Your task to perform on an android device: uninstall "Fetch Rewards" Image 0: 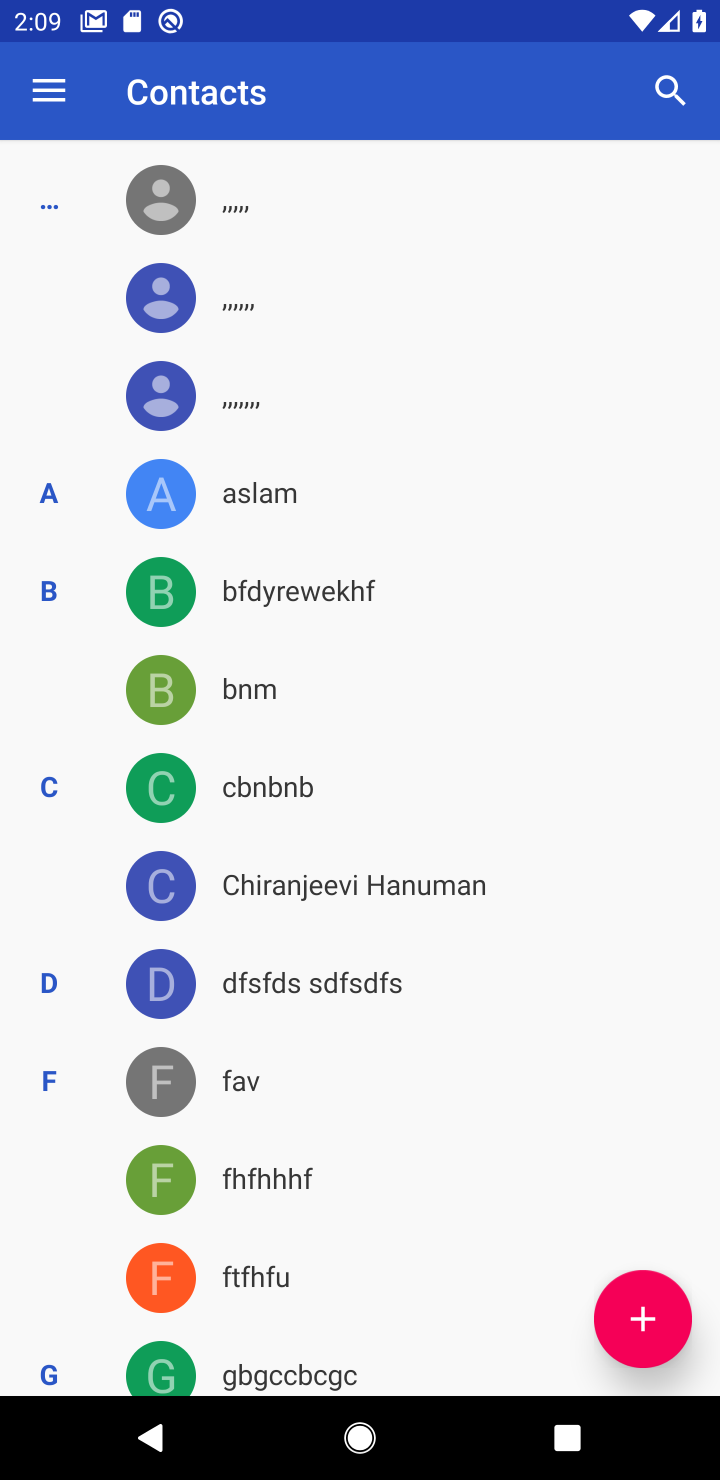
Step 0: press home button
Your task to perform on an android device: uninstall "Fetch Rewards" Image 1: 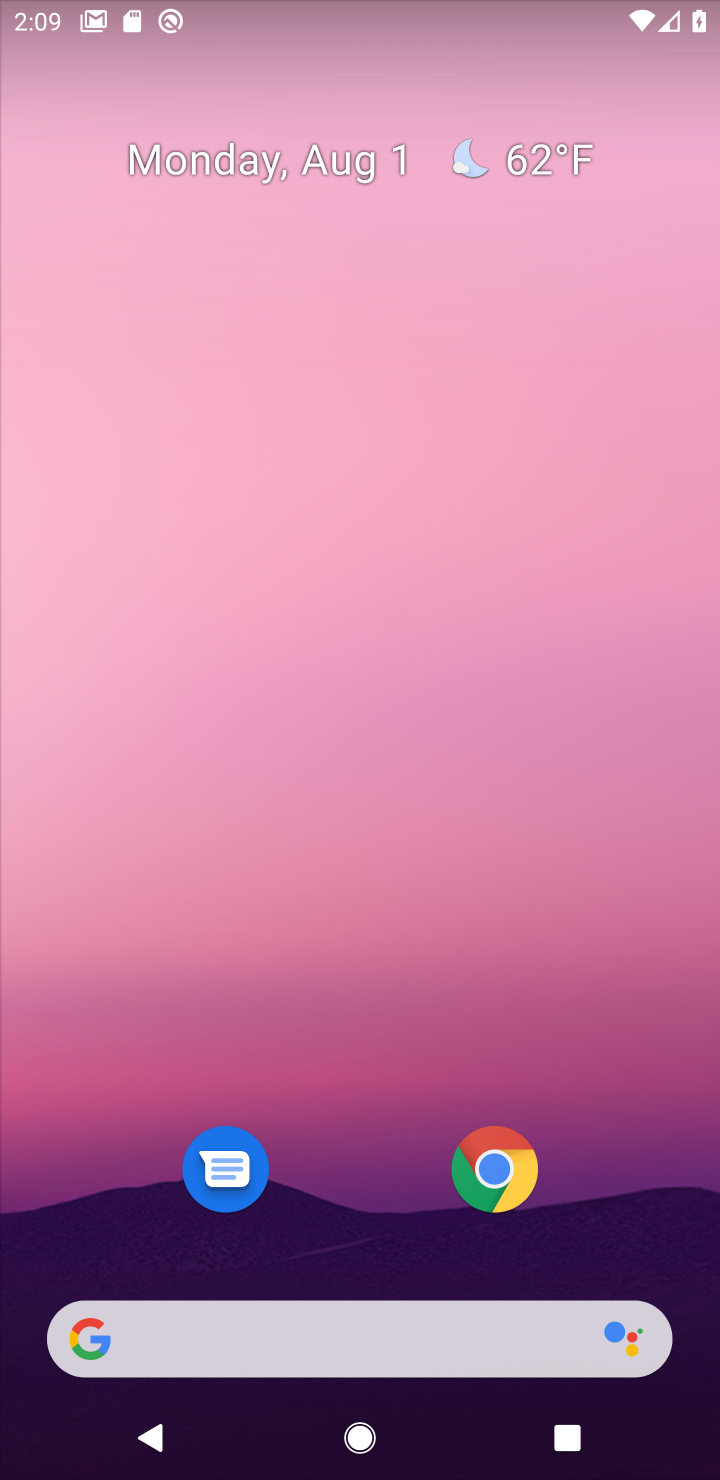
Step 1: drag from (285, 911) to (274, 230)
Your task to perform on an android device: uninstall "Fetch Rewards" Image 2: 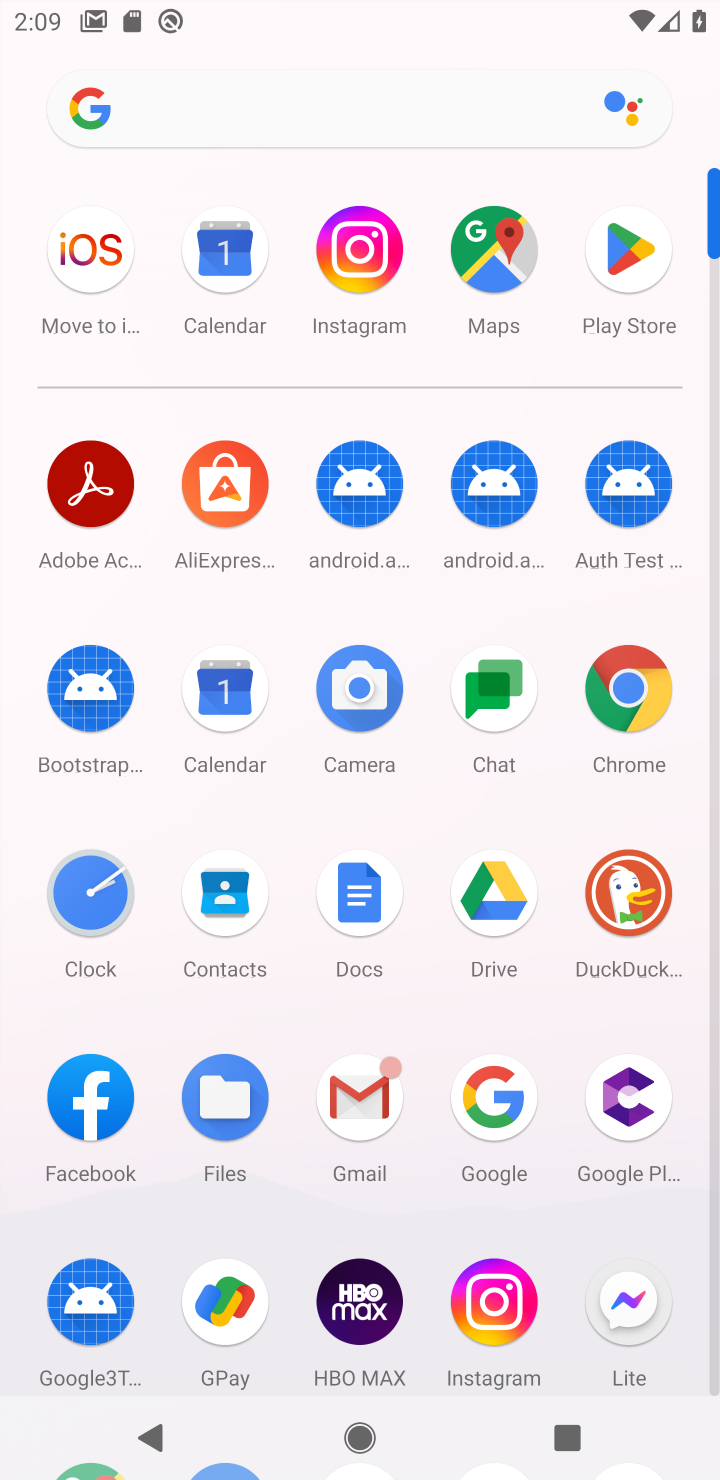
Step 2: click (654, 295)
Your task to perform on an android device: uninstall "Fetch Rewards" Image 3: 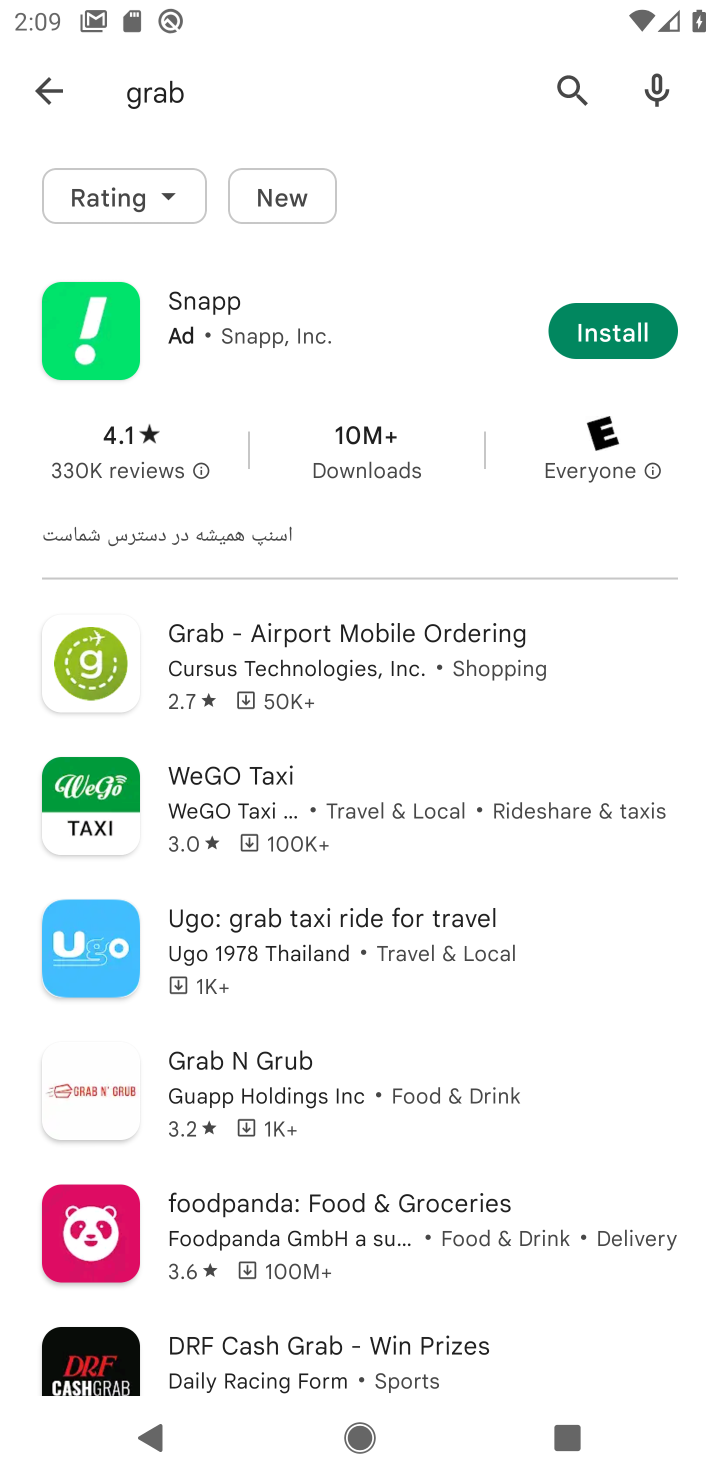
Step 3: click (39, 71)
Your task to perform on an android device: uninstall "Fetch Rewards" Image 4: 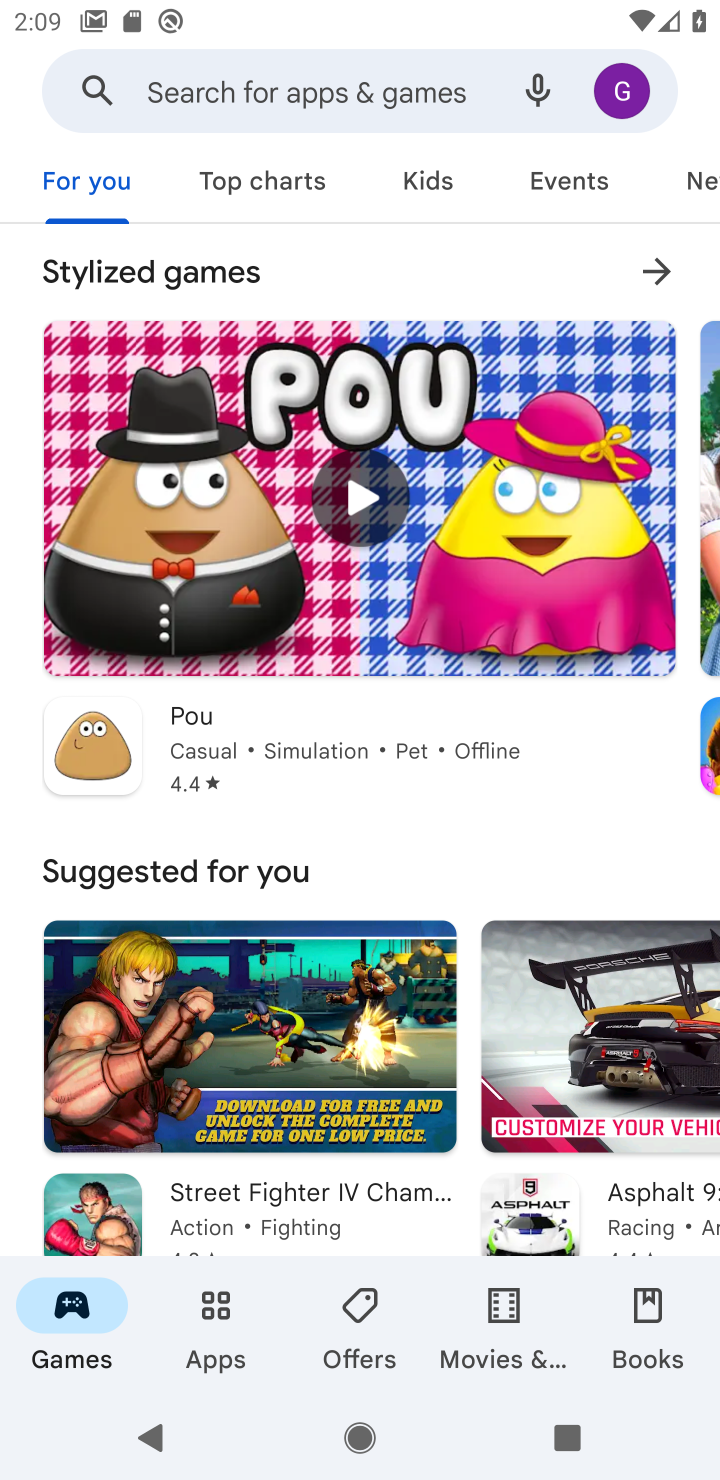
Step 4: click (220, 100)
Your task to perform on an android device: uninstall "Fetch Rewards" Image 5: 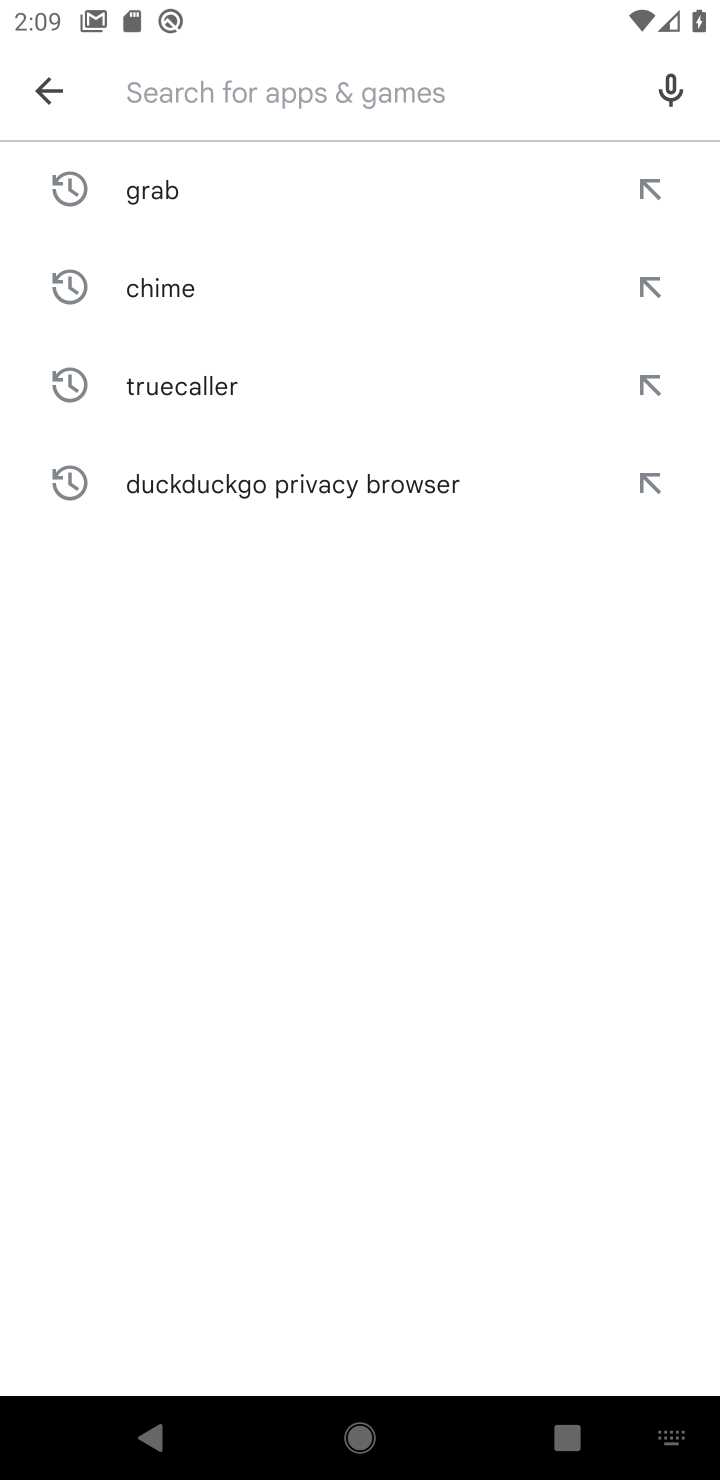
Step 5: type "Fetch Rewards"
Your task to perform on an android device: uninstall "Fetch Rewards" Image 6: 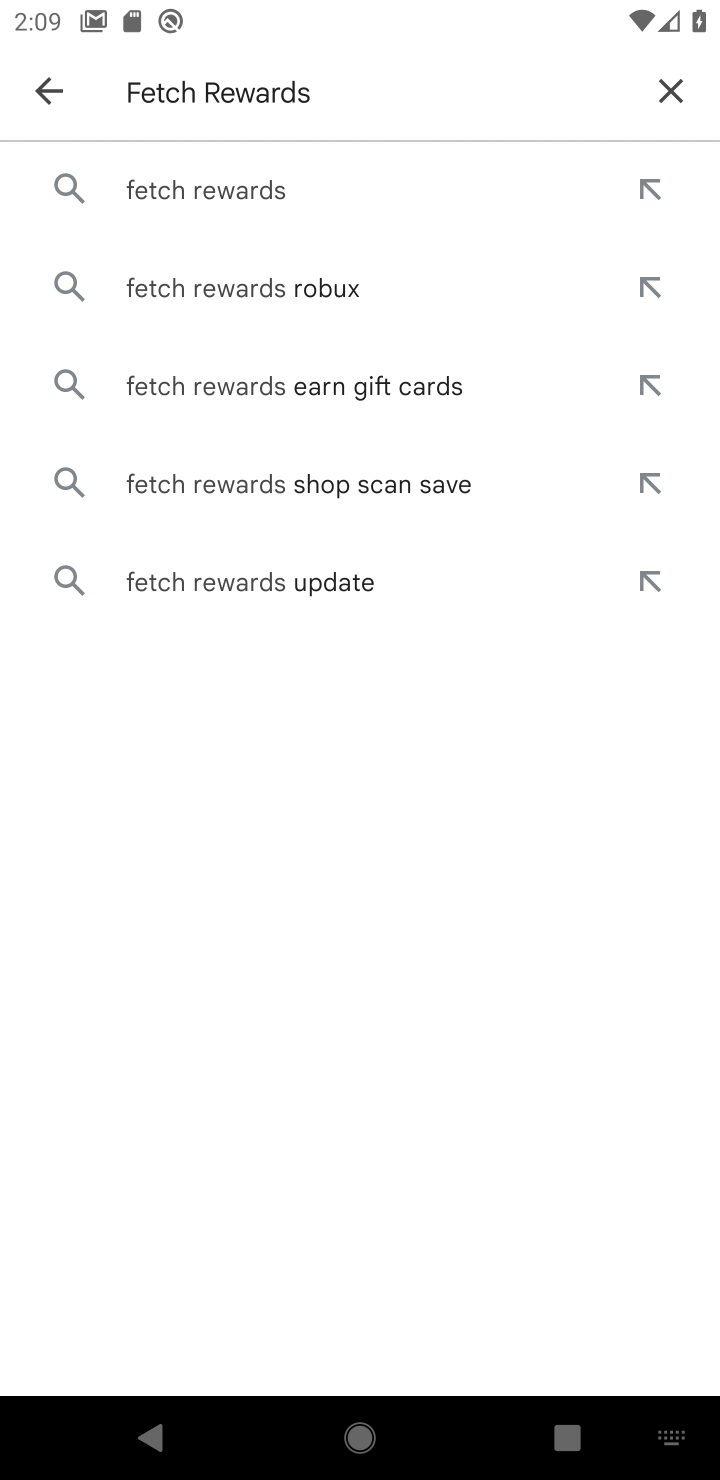
Step 6: click (192, 188)
Your task to perform on an android device: uninstall "Fetch Rewards" Image 7: 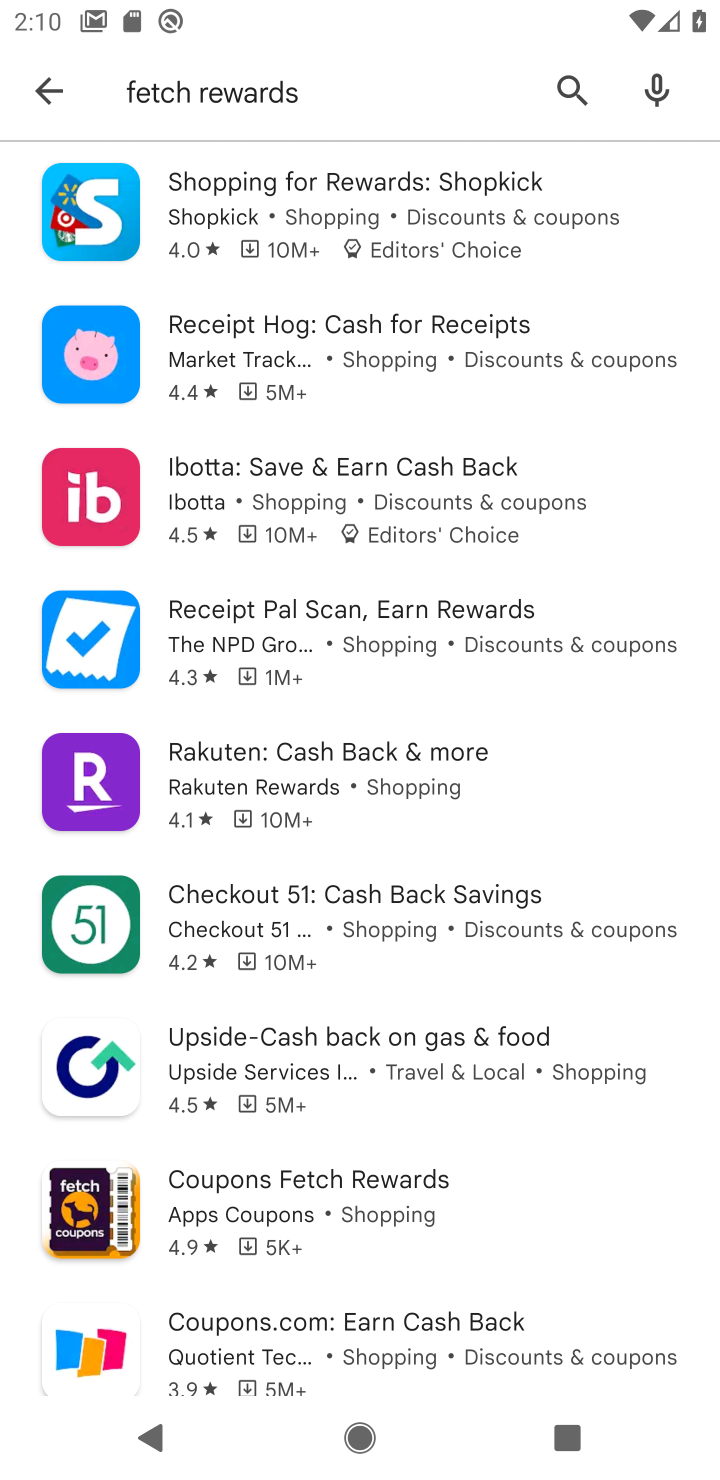
Step 7: task complete